Your task to perform on an android device: Go to battery settings Image 0: 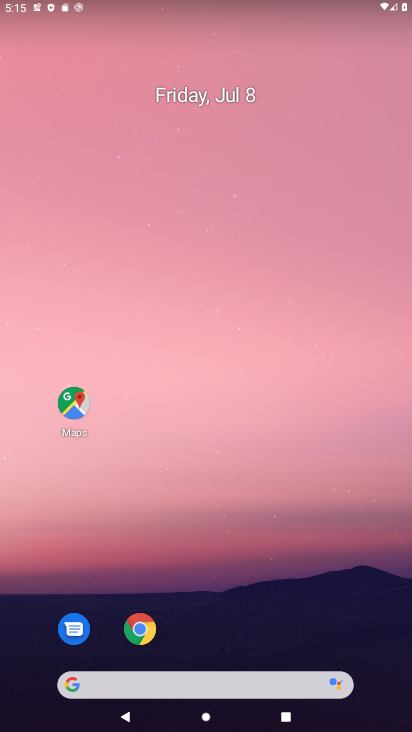
Step 0: press home button
Your task to perform on an android device: Go to battery settings Image 1: 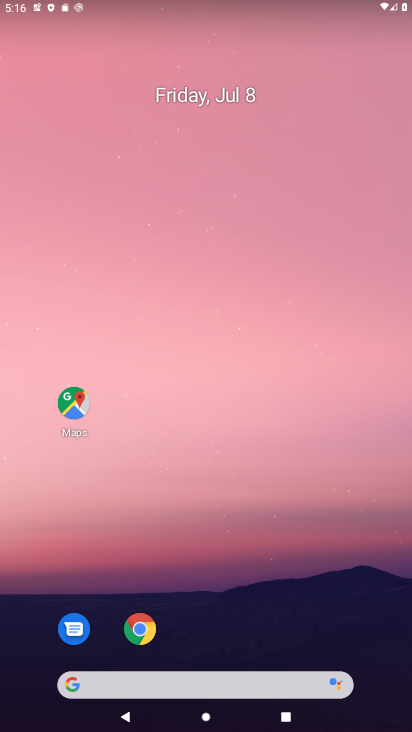
Step 1: drag from (253, 618) to (236, 108)
Your task to perform on an android device: Go to battery settings Image 2: 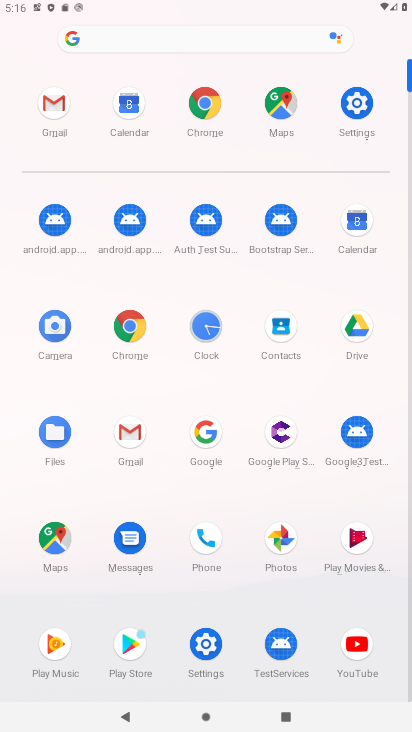
Step 2: click (355, 106)
Your task to perform on an android device: Go to battery settings Image 3: 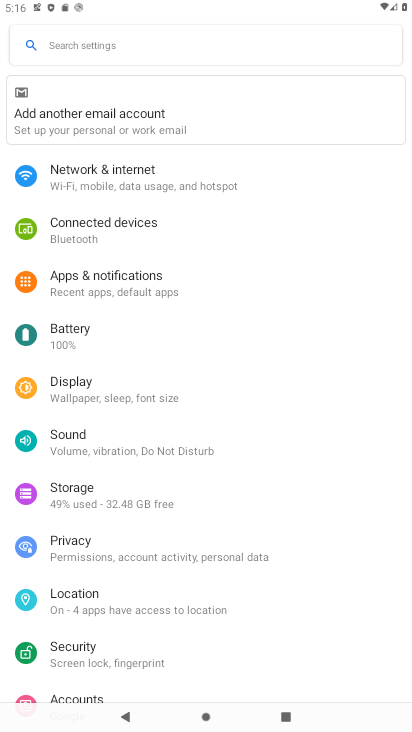
Step 3: click (64, 335)
Your task to perform on an android device: Go to battery settings Image 4: 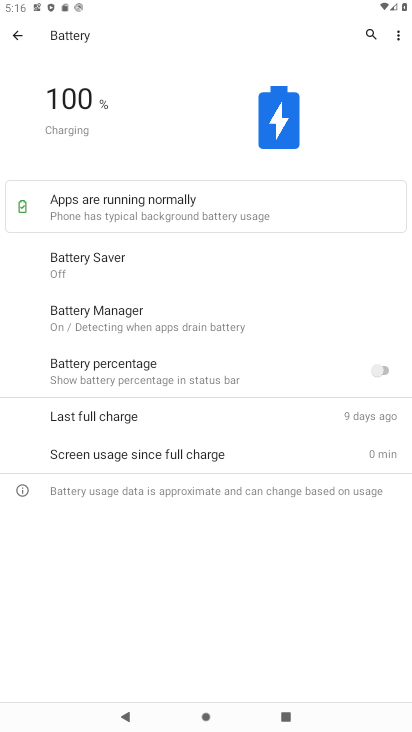
Step 4: task complete